Your task to perform on an android device: Search for the new Nintendo switch on Best Buy Image 0: 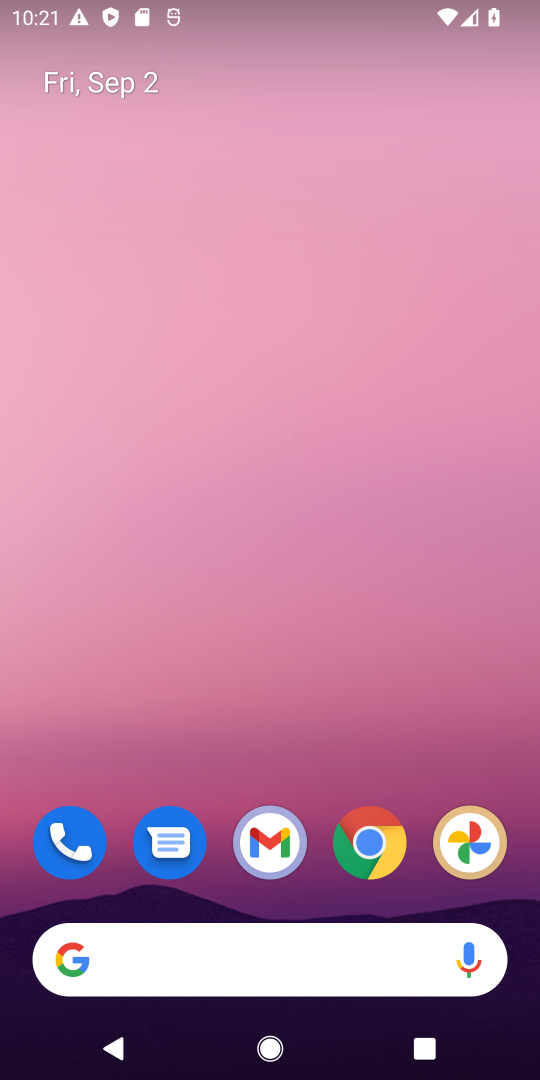
Step 0: drag from (266, 144) to (282, 7)
Your task to perform on an android device: Search for the new Nintendo switch on Best Buy Image 1: 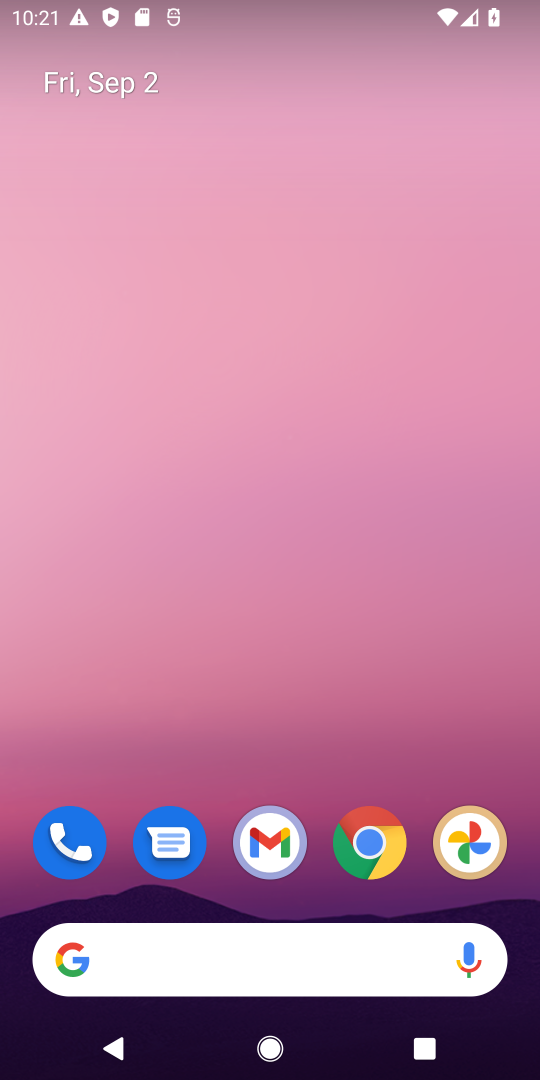
Step 1: drag from (244, 917) to (199, 350)
Your task to perform on an android device: Search for the new Nintendo switch on Best Buy Image 2: 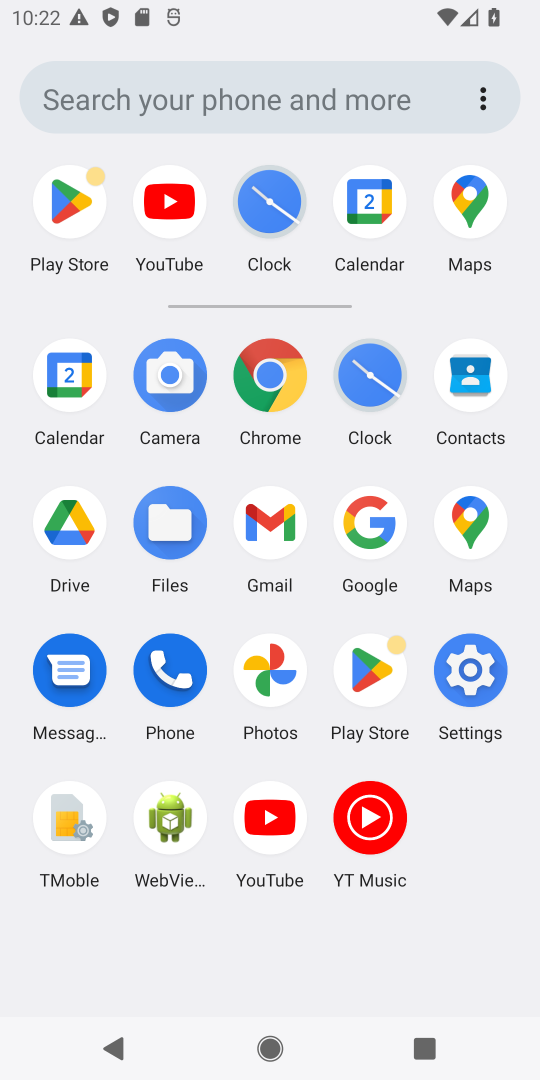
Step 2: click (263, 375)
Your task to perform on an android device: Search for the new Nintendo switch on Best Buy Image 3: 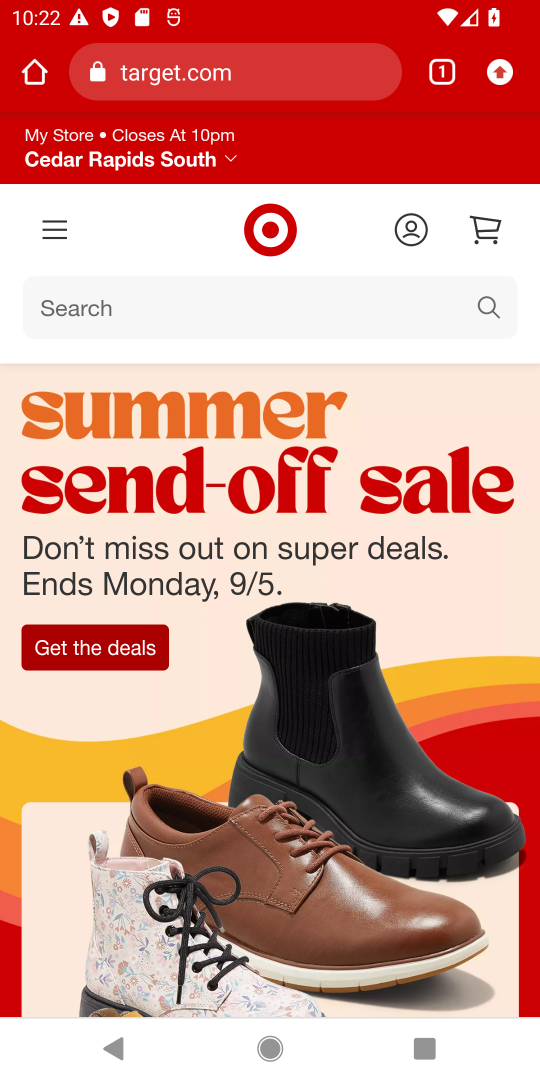
Step 3: click (233, 73)
Your task to perform on an android device: Search for the new Nintendo switch on Best Buy Image 4: 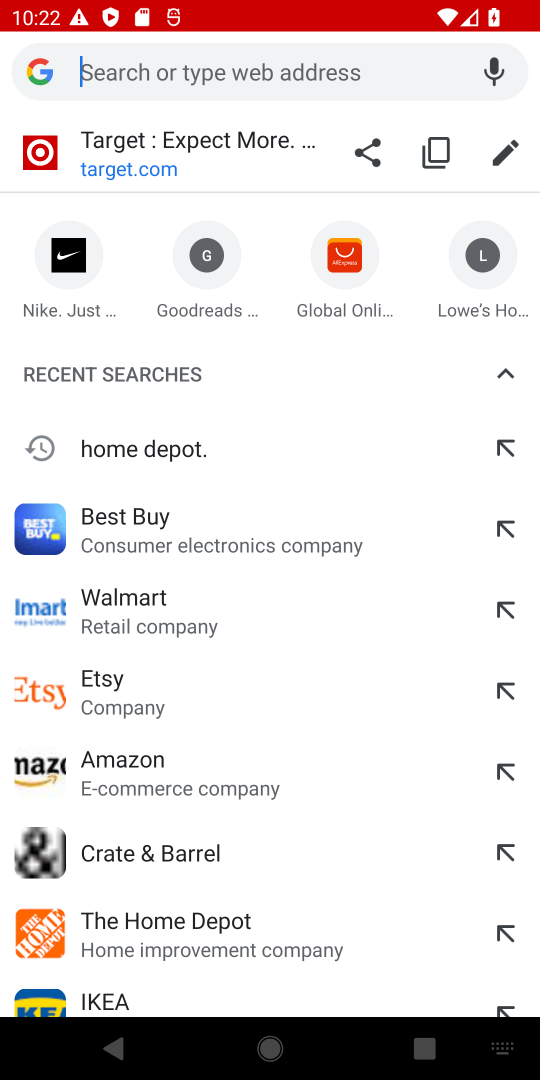
Step 4: type "Best Buy"
Your task to perform on an android device: Search for the new Nintendo switch on Best Buy Image 5: 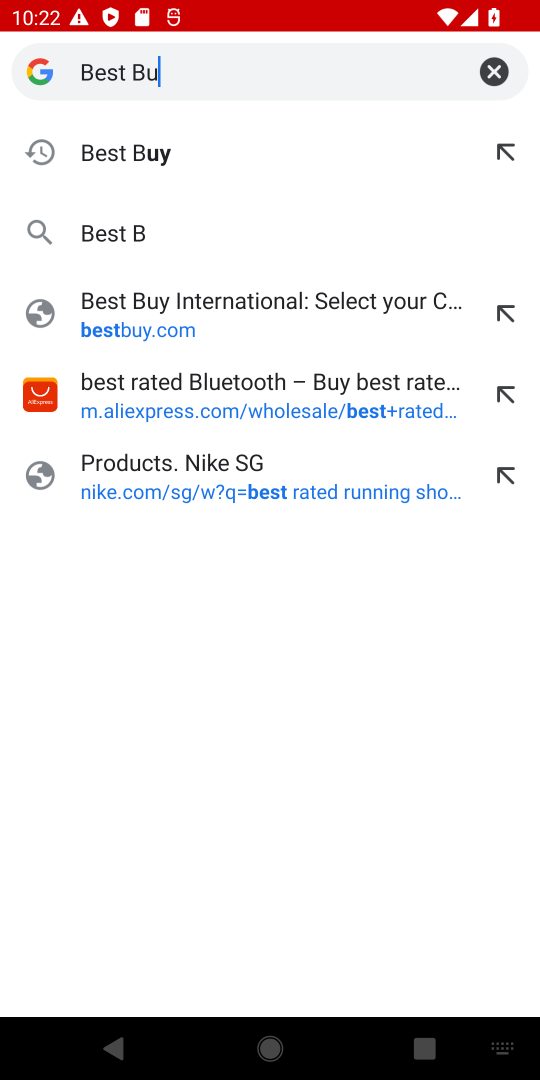
Step 5: press enter
Your task to perform on an android device: Search for the new Nintendo switch on Best Buy Image 6: 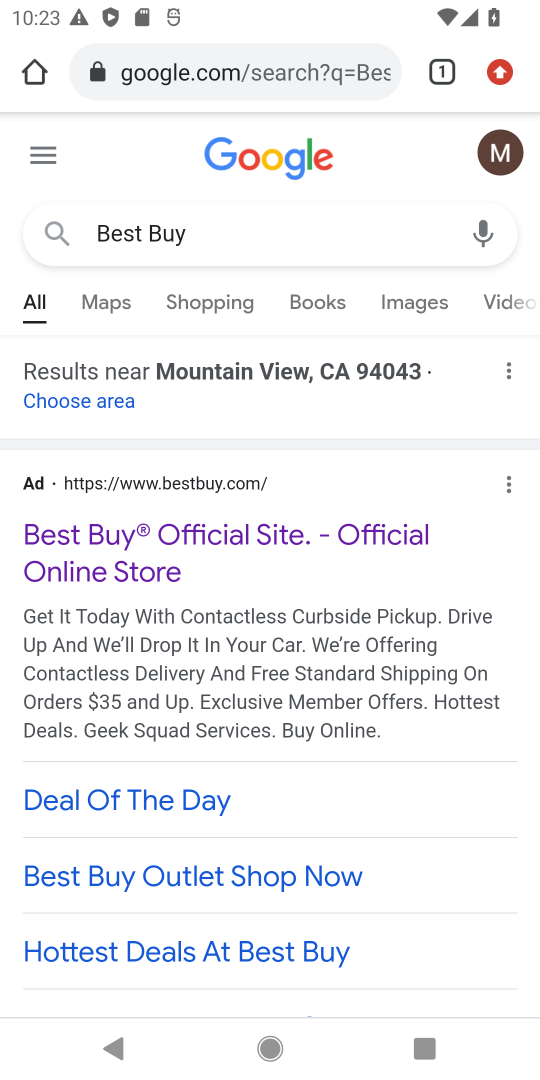
Step 6: drag from (287, 773) to (339, 495)
Your task to perform on an android device: Search for the new Nintendo switch on Best Buy Image 7: 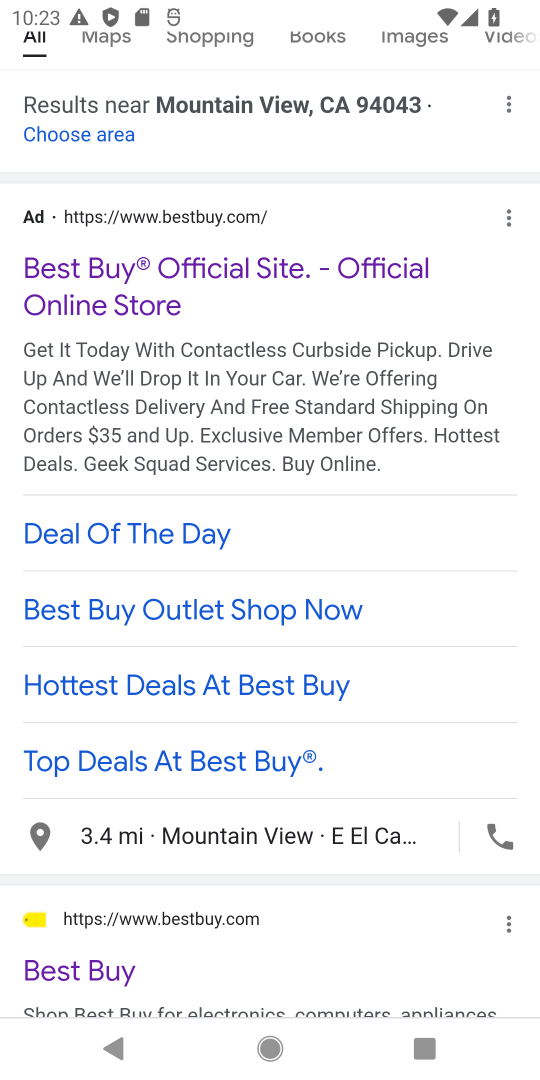
Step 7: drag from (254, 801) to (280, 475)
Your task to perform on an android device: Search for the new Nintendo switch on Best Buy Image 8: 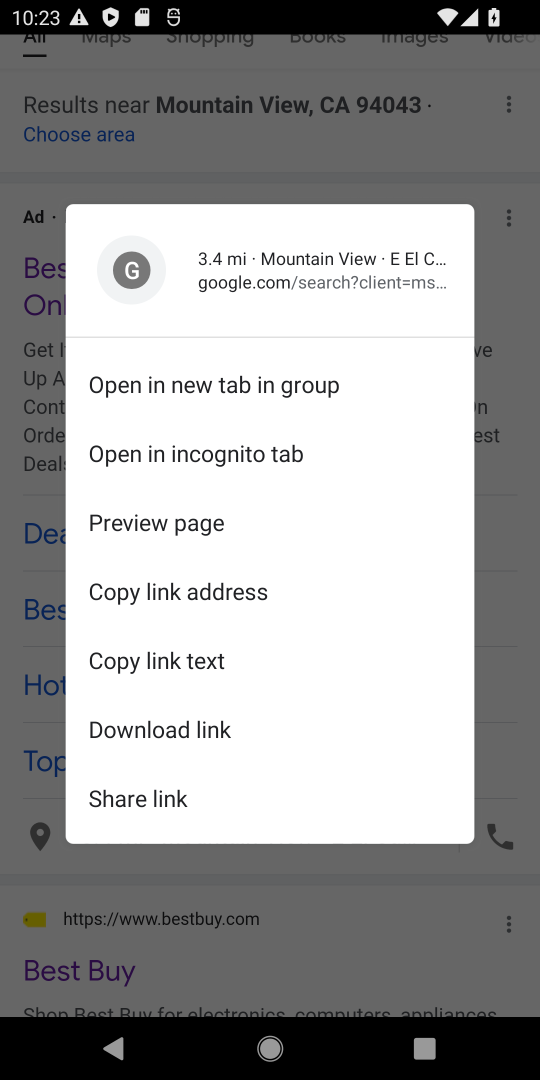
Step 8: click (211, 917)
Your task to perform on an android device: Search for the new Nintendo switch on Best Buy Image 9: 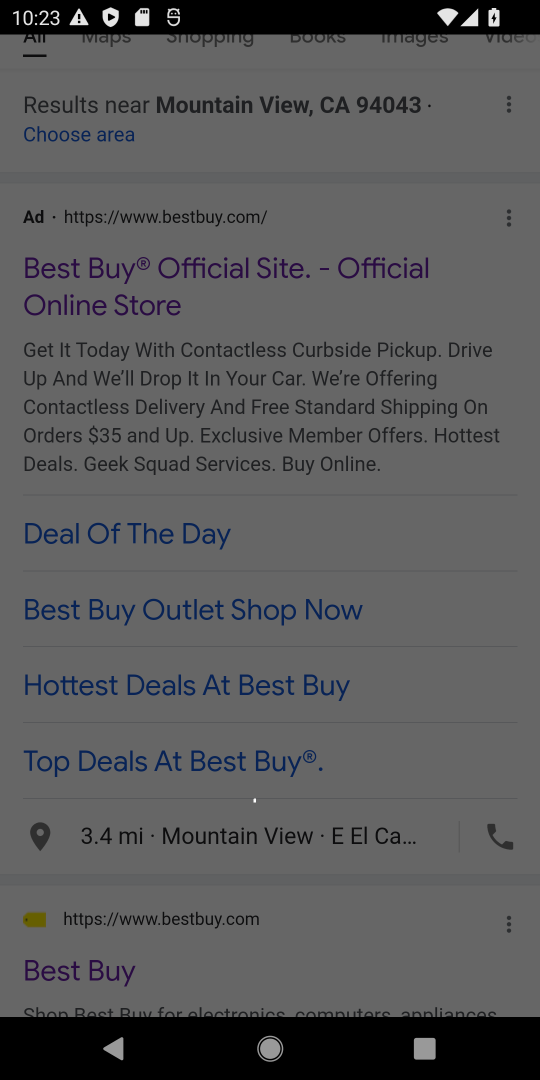
Step 9: drag from (222, 787) to (252, 522)
Your task to perform on an android device: Search for the new Nintendo switch on Best Buy Image 10: 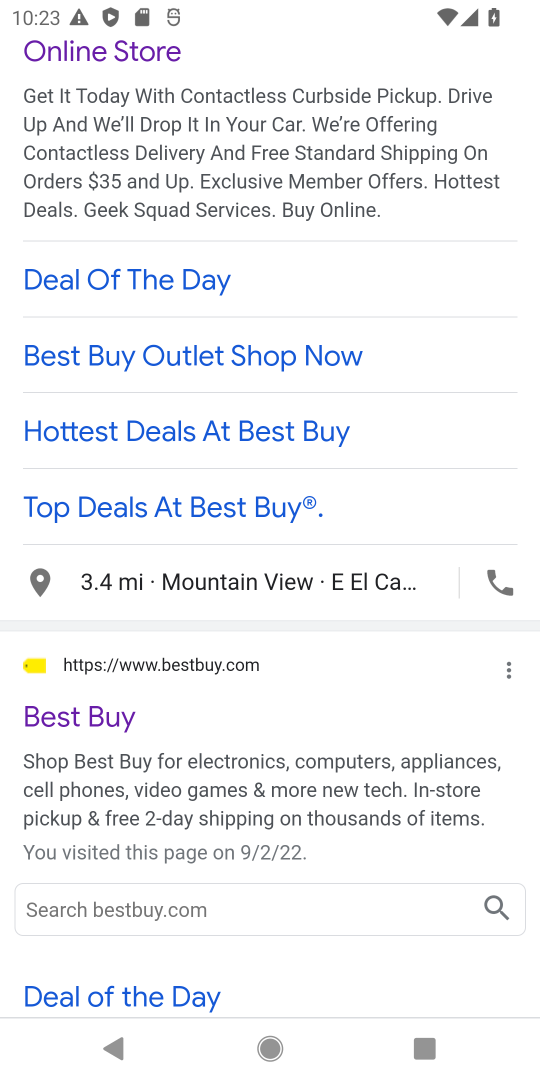
Step 10: click (60, 712)
Your task to perform on an android device: Search for the new Nintendo switch on Best Buy Image 11: 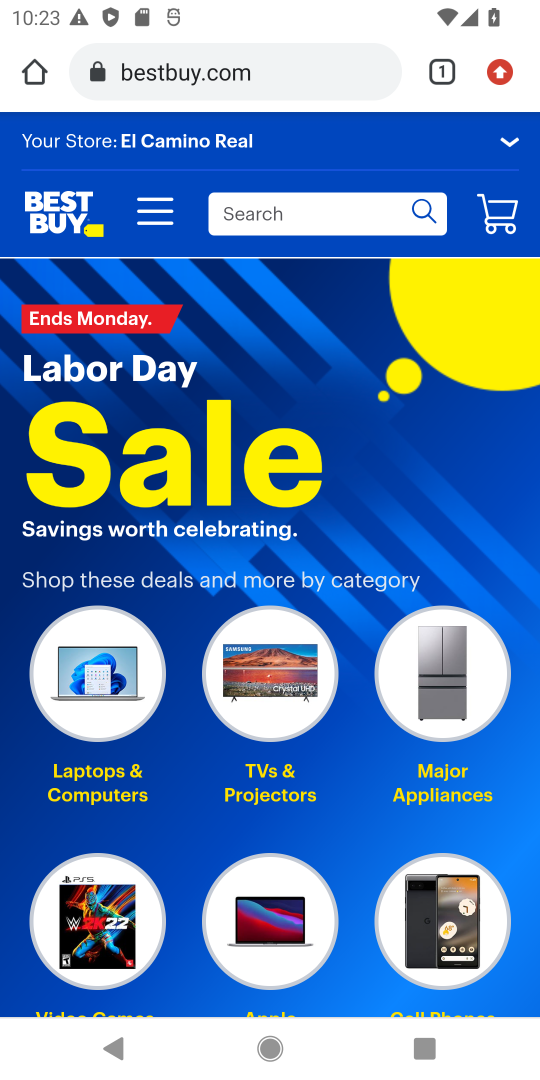
Step 11: click (276, 213)
Your task to perform on an android device: Search for the new Nintendo switch on Best Buy Image 12: 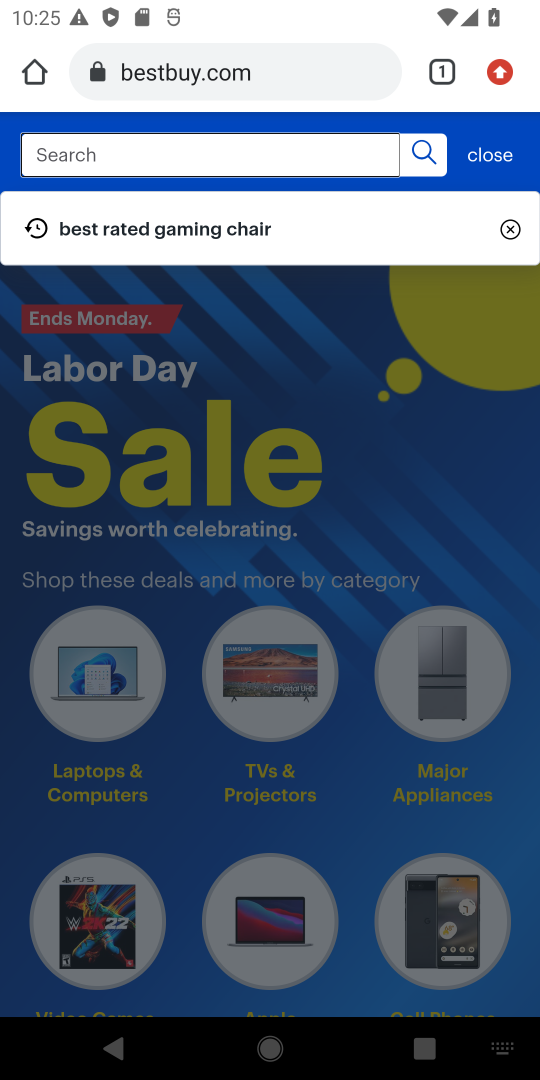
Step 12: type "new Nintendo switch "
Your task to perform on an android device: Search for the new Nintendo switch on Best Buy Image 13: 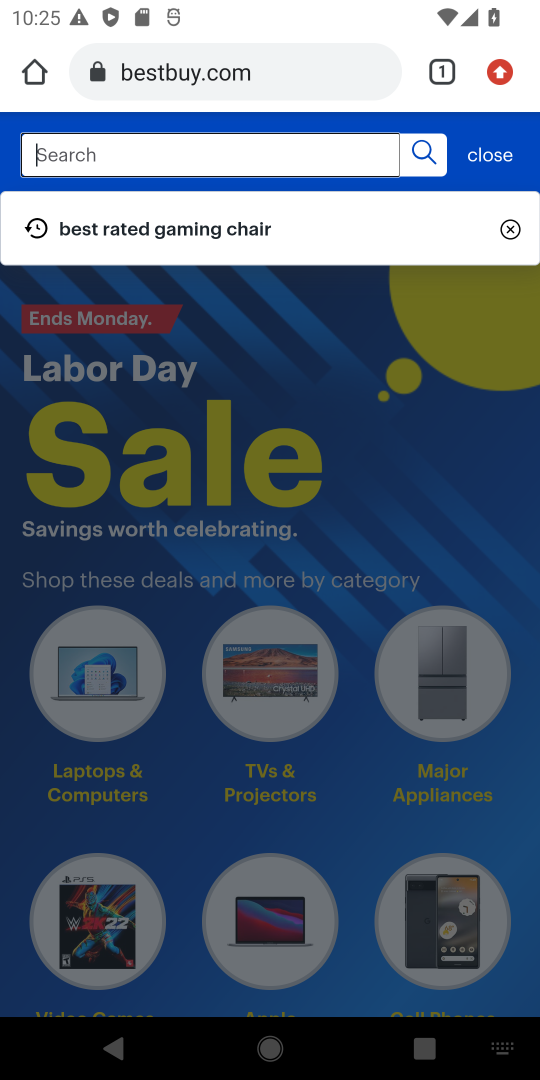
Step 13: press enter
Your task to perform on an android device: Search for the new Nintendo switch on Best Buy Image 14: 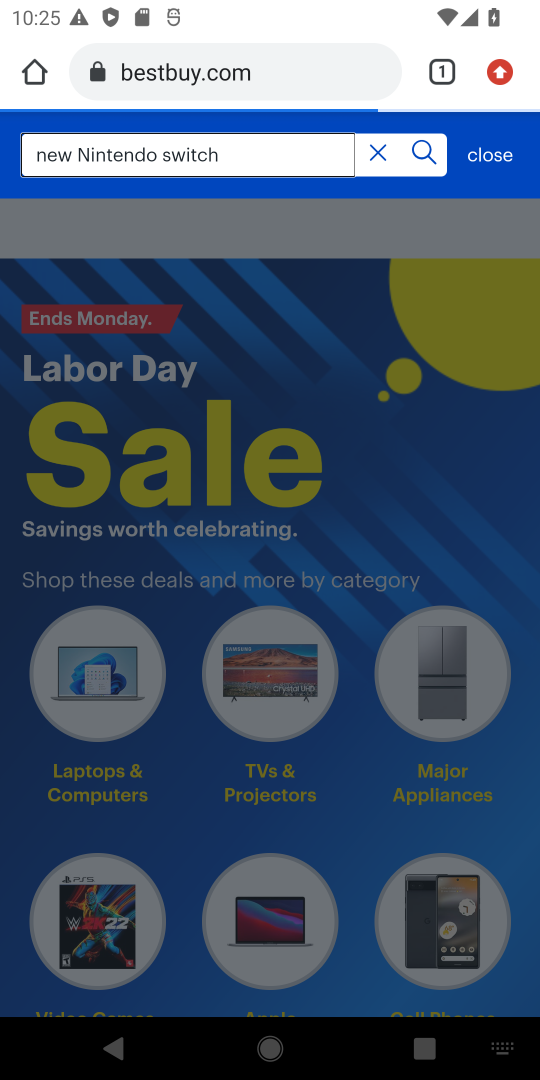
Step 14: press enter
Your task to perform on an android device: Search for the new Nintendo switch on Best Buy Image 15: 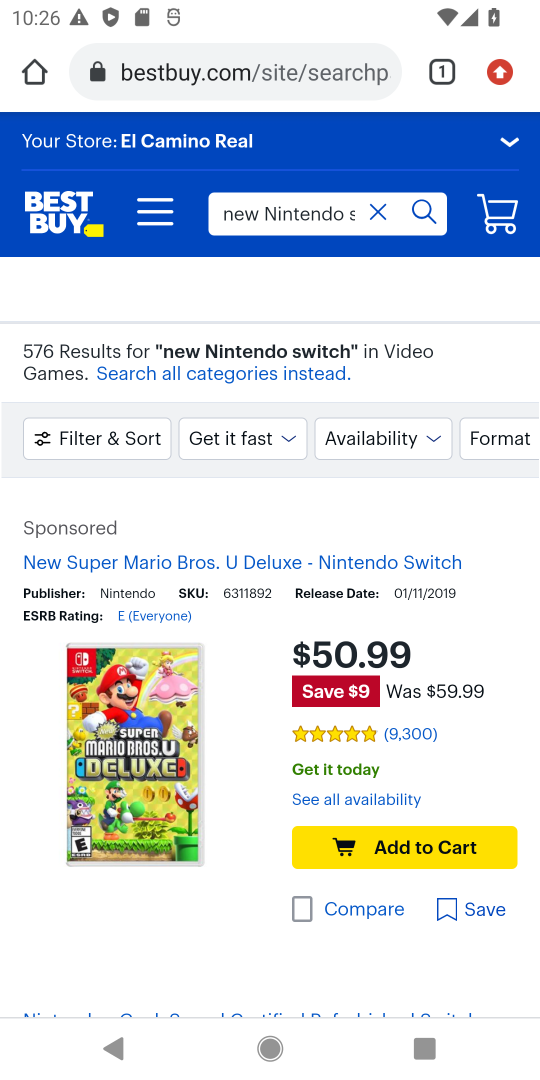
Step 15: task complete